Your task to perform on an android device: add a label to a message in the gmail app Image 0: 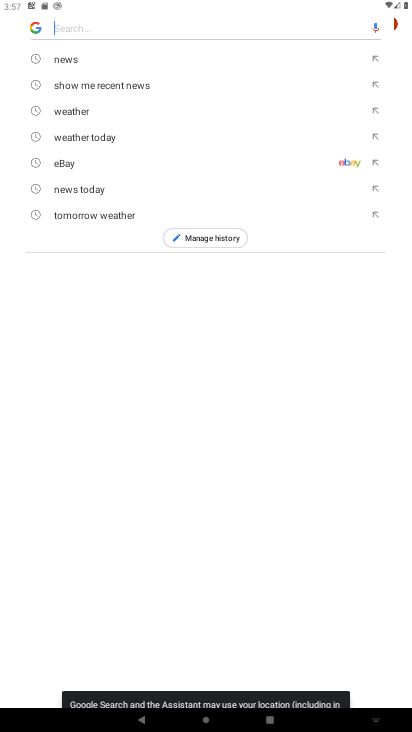
Step 0: press home button
Your task to perform on an android device: add a label to a message in the gmail app Image 1: 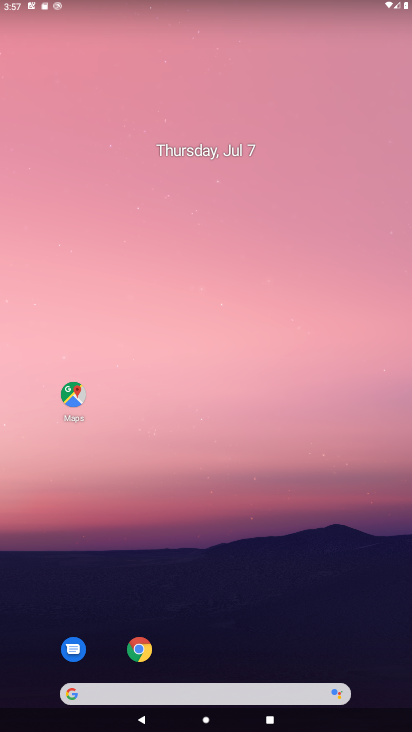
Step 1: drag from (368, 667) to (276, 111)
Your task to perform on an android device: add a label to a message in the gmail app Image 2: 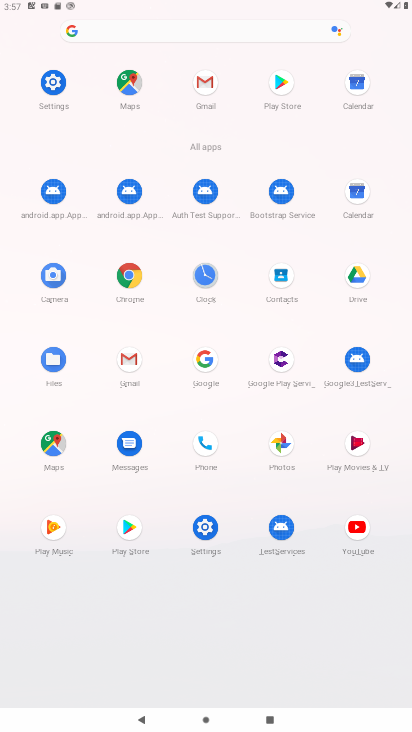
Step 2: click (127, 358)
Your task to perform on an android device: add a label to a message in the gmail app Image 3: 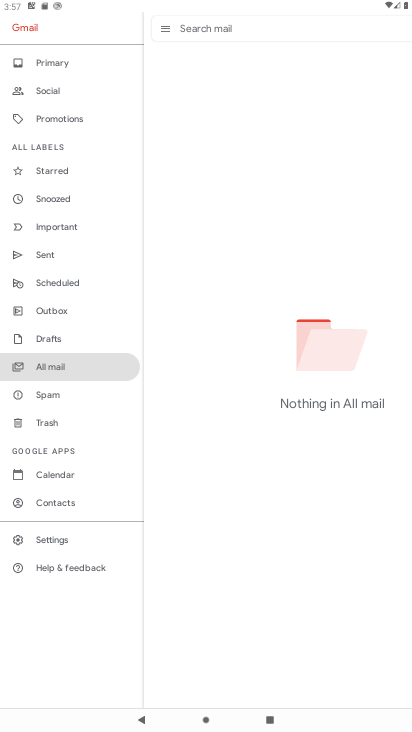
Step 3: click (70, 372)
Your task to perform on an android device: add a label to a message in the gmail app Image 4: 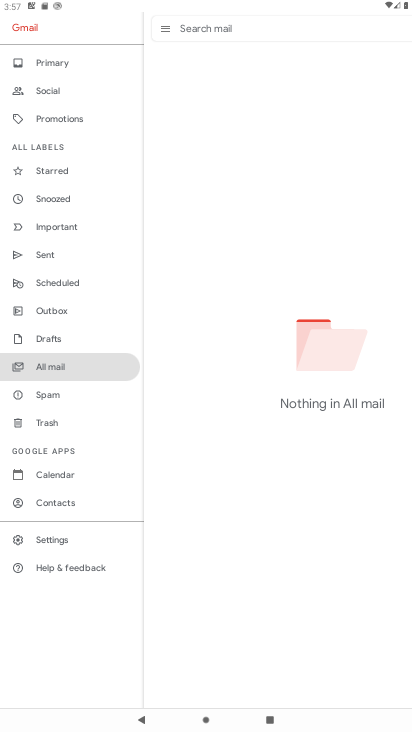
Step 4: task complete